Your task to perform on an android device: open chrome and create a bookmark for the current page Image 0: 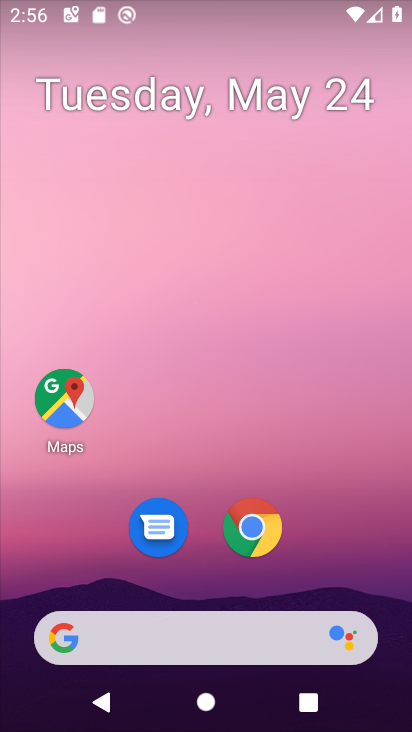
Step 0: click (252, 515)
Your task to perform on an android device: open chrome and create a bookmark for the current page Image 1: 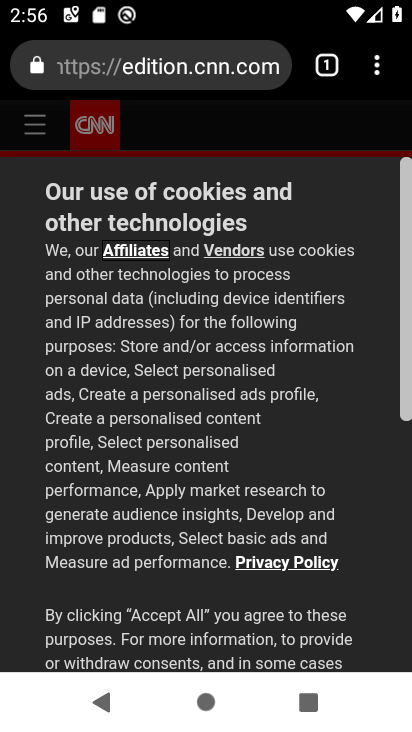
Step 1: click (376, 67)
Your task to perform on an android device: open chrome and create a bookmark for the current page Image 2: 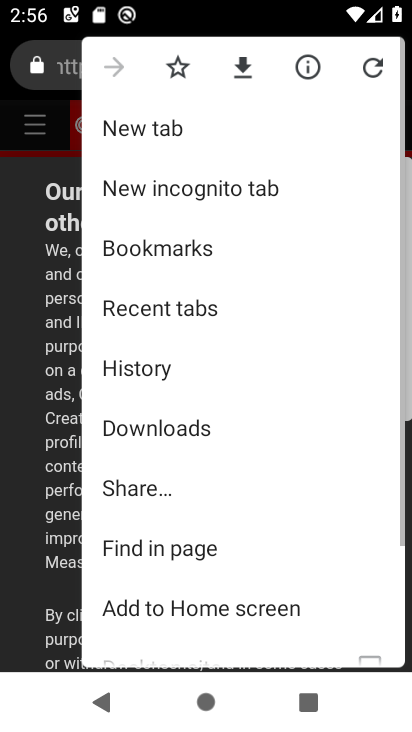
Step 2: click (180, 68)
Your task to perform on an android device: open chrome and create a bookmark for the current page Image 3: 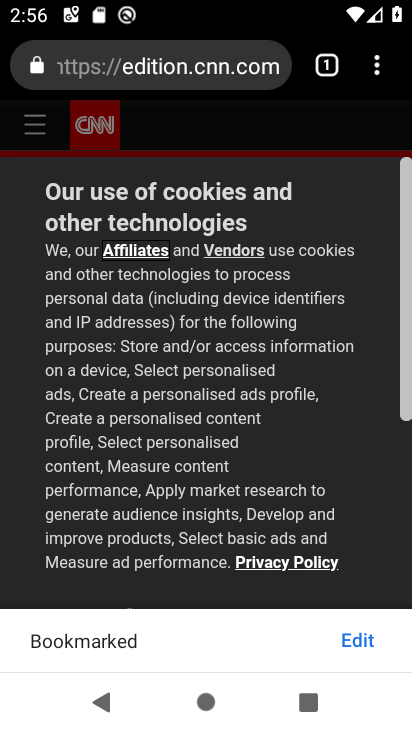
Step 3: task complete